Your task to perform on an android device: turn off location history Image 0: 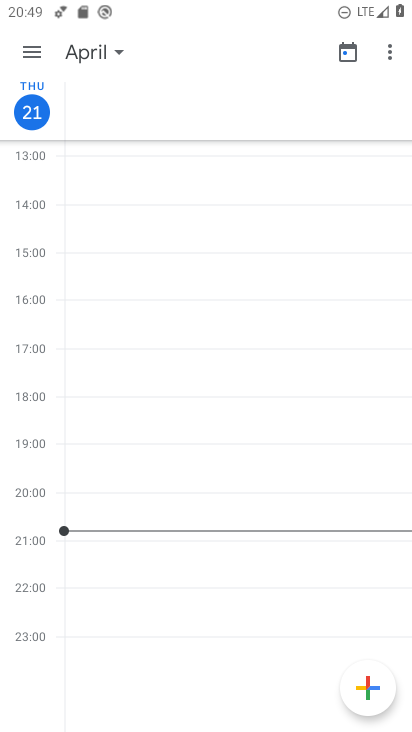
Step 0: drag from (249, 434) to (265, 165)
Your task to perform on an android device: turn off location history Image 1: 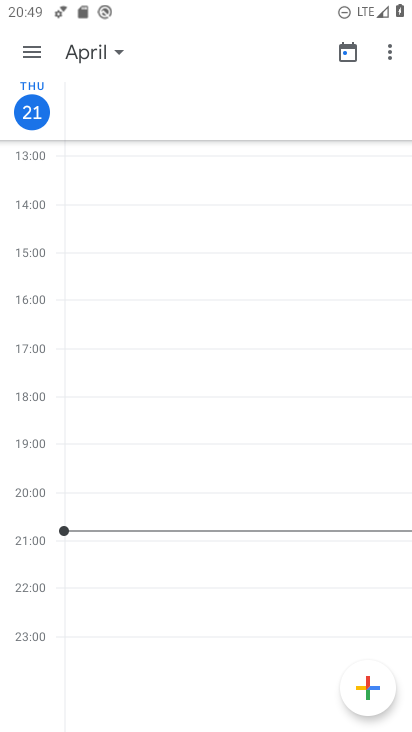
Step 1: press home button
Your task to perform on an android device: turn off location history Image 2: 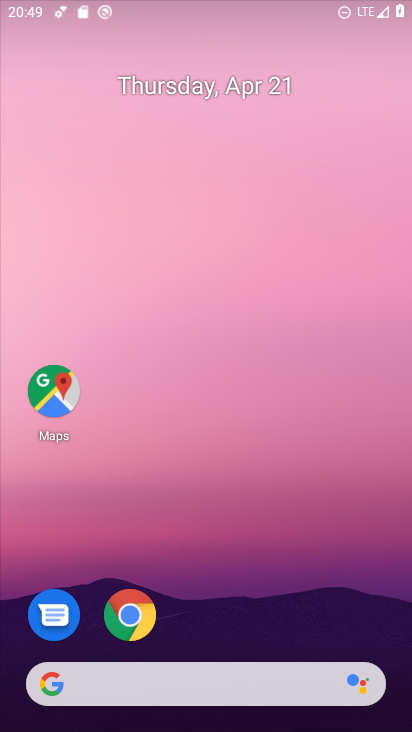
Step 2: drag from (200, 542) to (198, 0)
Your task to perform on an android device: turn off location history Image 3: 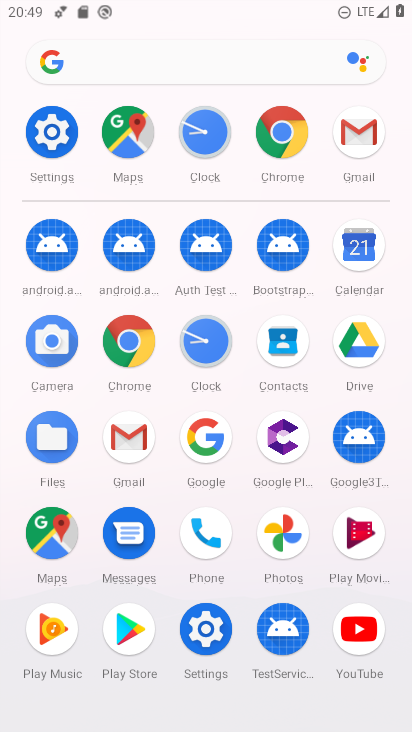
Step 3: click (207, 638)
Your task to perform on an android device: turn off location history Image 4: 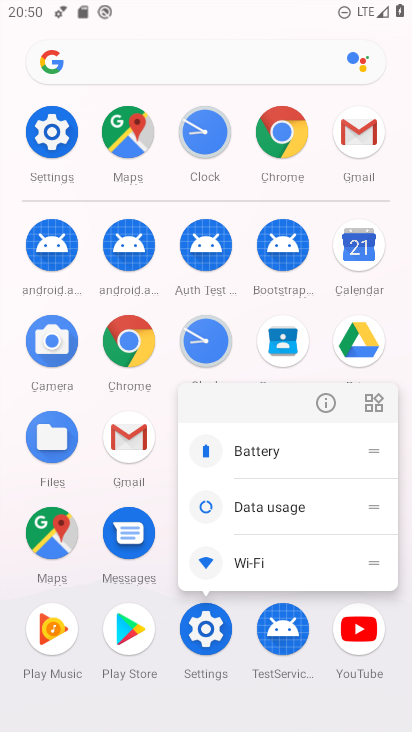
Step 4: click (335, 407)
Your task to perform on an android device: turn off location history Image 5: 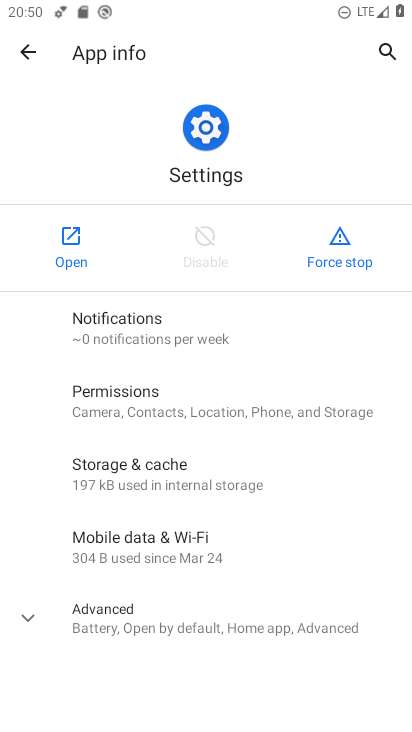
Step 5: click (62, 258)
Your task to perform on an android device: turn off location history Image 6: 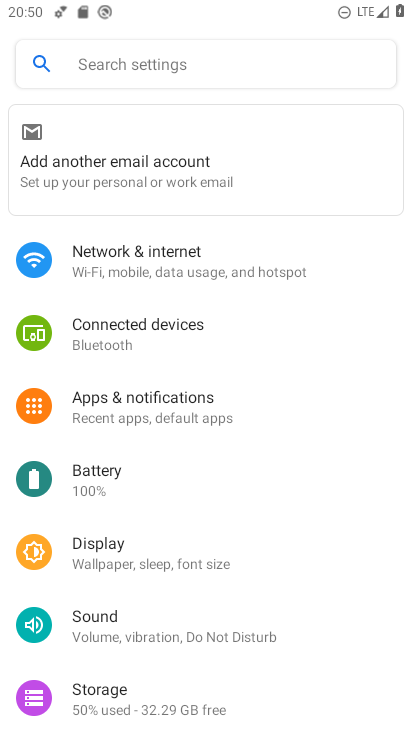
Step 6: drag from (187, 588) to (276, 79)
Your task to perform on an android device: turn off location history Image 7: 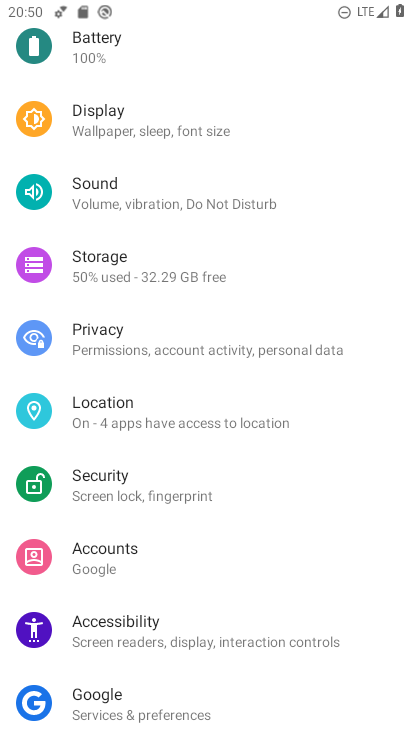
Step 7: drag from (181, 645) to (263, 211)
Your task to perform on an android device: turn off location history Image 8: 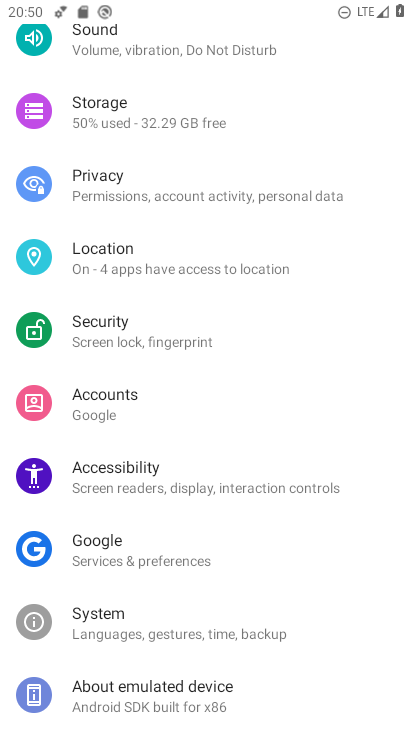
Step 8: click (174, 256)
Your task to perform on an android device: turn off location history Image 9: 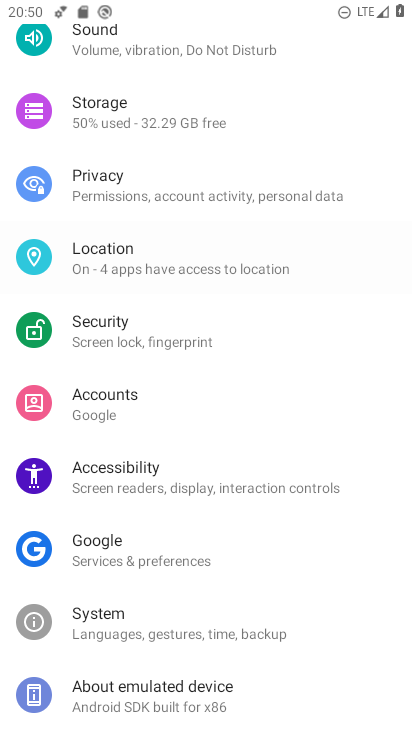
Step 9: click (161, 269)
Your task to perform on an android device: turn off location history Image 10: 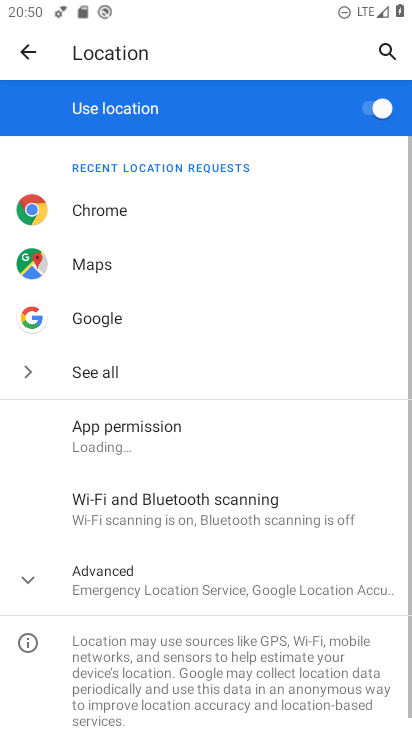
Step 10: click (158, 584)
Your task to perform on an android device: turn off location history Image 11: 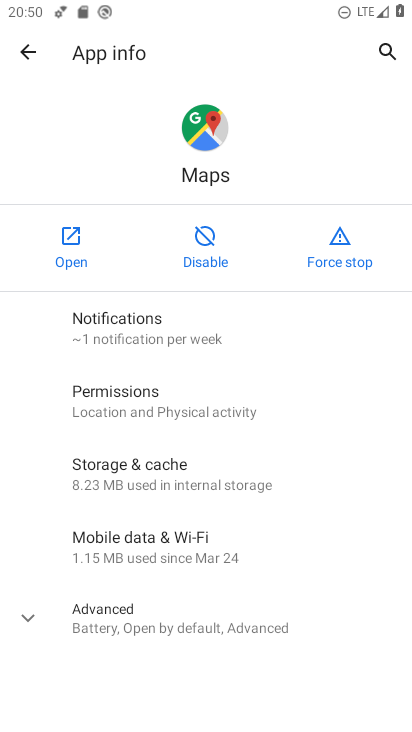
Step 11: click (23, 40)
Your task to perform on an android device: turn off location history Image 12: 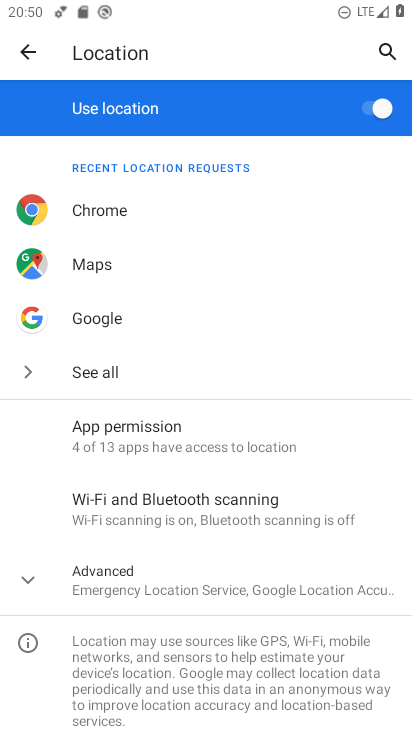
Step 12: drag from (219, 560) to (232, 145)
Your task to perform on an android device: turn off location history Image 13: 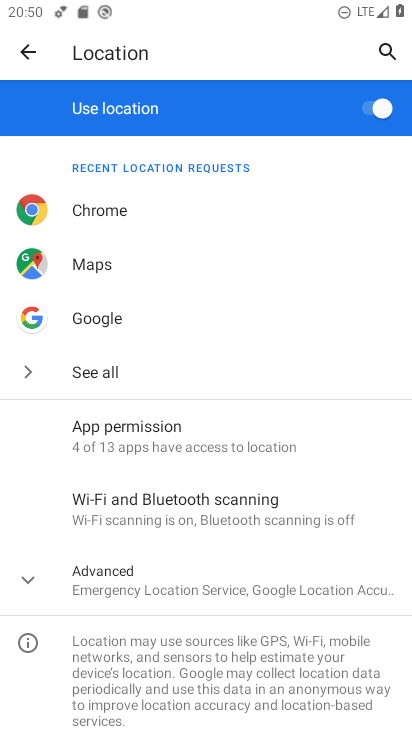
Step 13: click (131, 574)
Your task to perform on an android device: turn off location history Image 14: 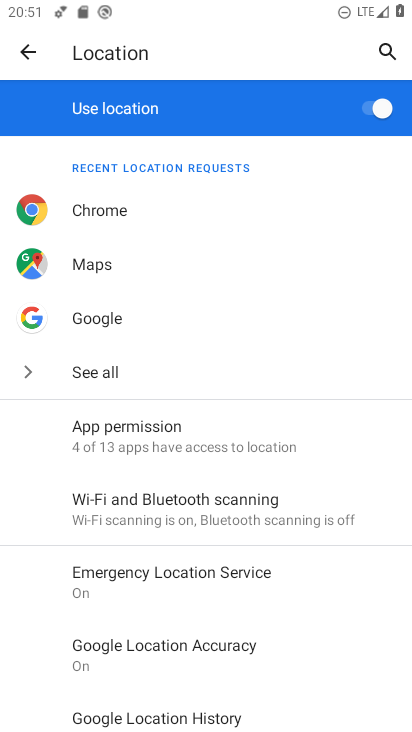
Step 14: drag from (197, 535) to (295, 202)
Your task to perform on an android device: turn off location history Image 15: 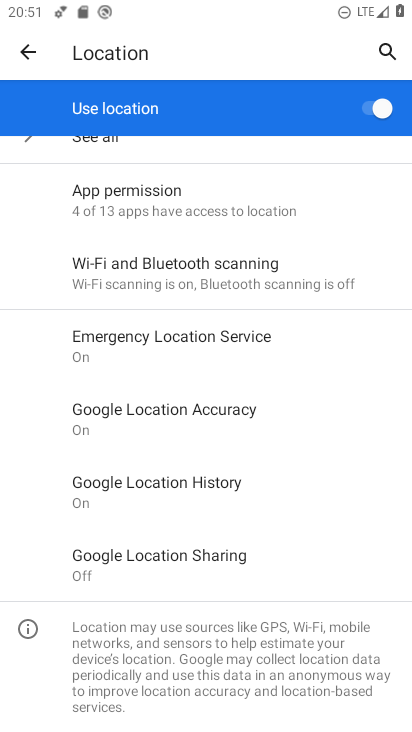
Step 15: click (230, 480)
Your task to perform on an android device: turn off location history Image 16: 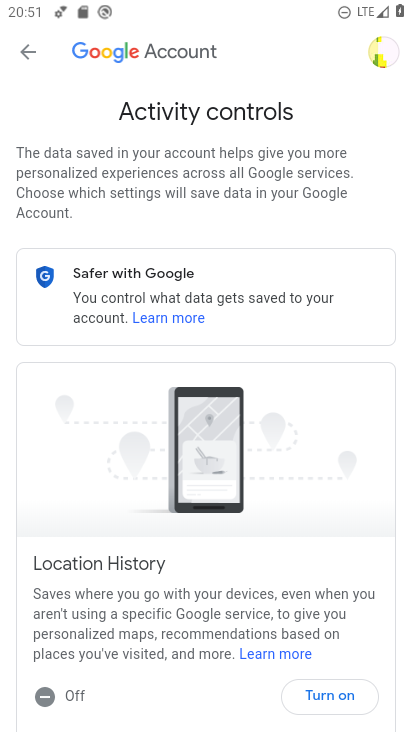
Step 16: click (374, 164)
Your task to perform on an android device: turn off location history Image 17: 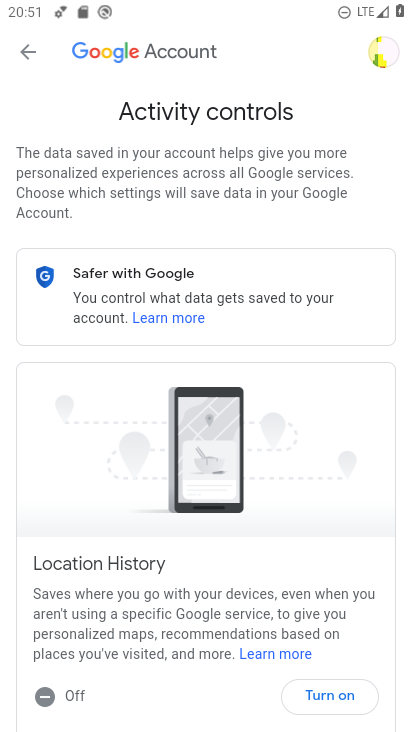
Step 17: click (329, 687)
Your task to perform on an android device: turn off location history Image 18: 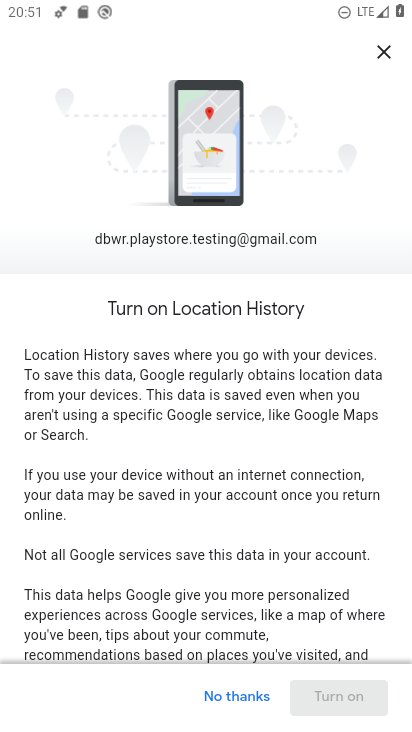
Step 18: drag from (226, 610) to (356, 239)
Your task to perform on an android device: turn off location history Image 19: 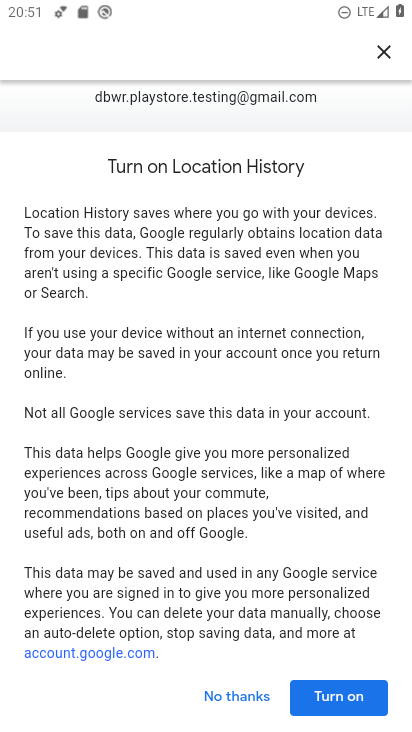
Step 19: drag from (207, 592) to (234, 429)
Your task to perform on an android device: turn off location history Image 20: 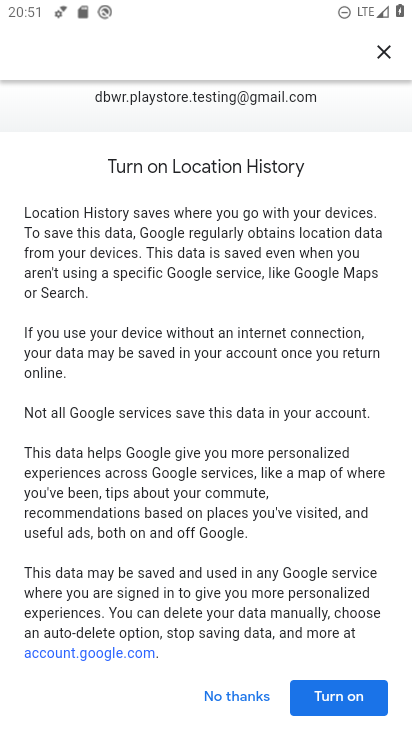
Step 20: click (339, 710)
Your task to perform on an android device: turn off location history Image 21: 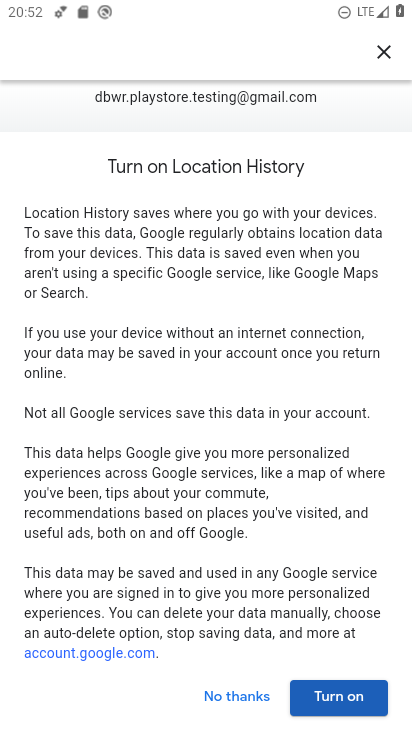
Step 21: click (352, 686)
Your task to perform on an android device: turn off location history Image 22: 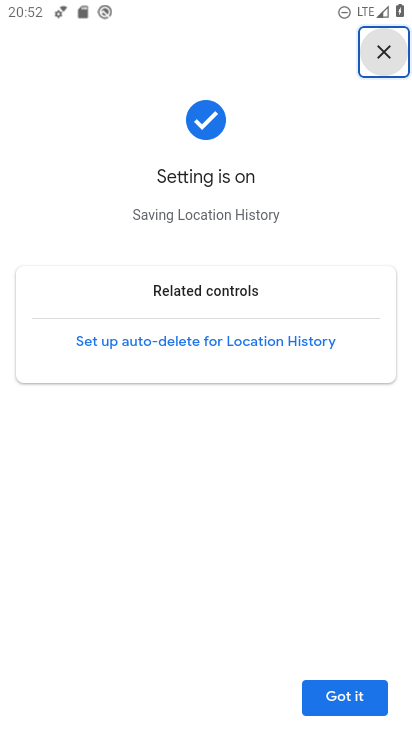
Step 22: click (339, 706)
Your task to perform on an android device: turn off location history Image 23: 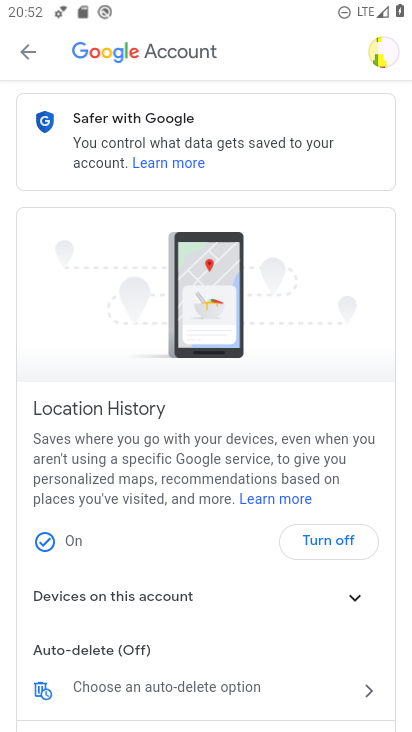
Step 23: drag from (235, 662) to (314, 316)
Your task to perform on an android device: turn off location history Image 24: 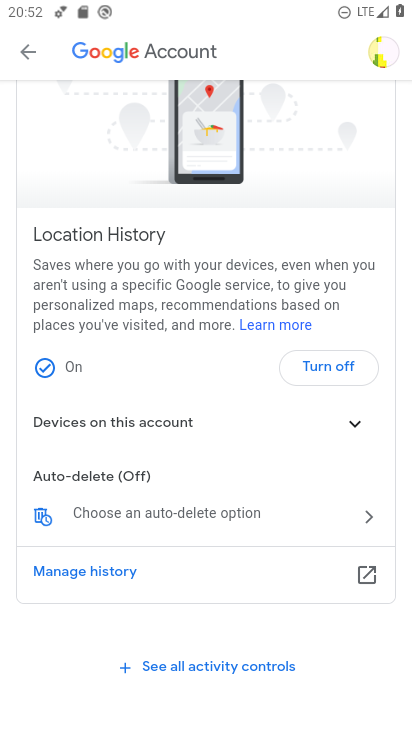
Step 24: drag from (253, 640) to (361, 359)
Your task to perform on an android device: turn off location history Image 25: 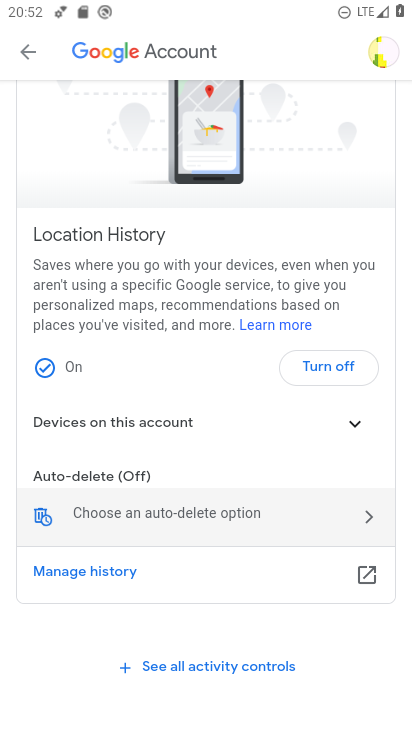
Step 25: drag from (208, 593) to (325, 340)
Your task to perform on an android device: turn off location history Image 26: 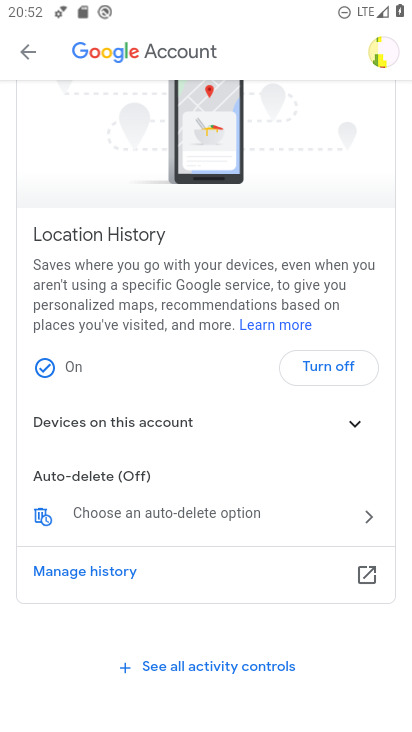
Step 26: click (342, 373)
Your task to perform on an android device: turn off location history Image 27: 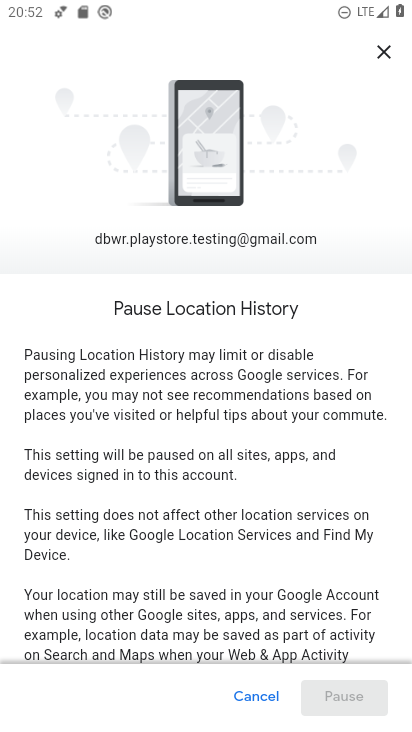
Step 27: drag from (287, 154) to (310, 74)
Your task to perform on an android device: turn off location history Image 28: 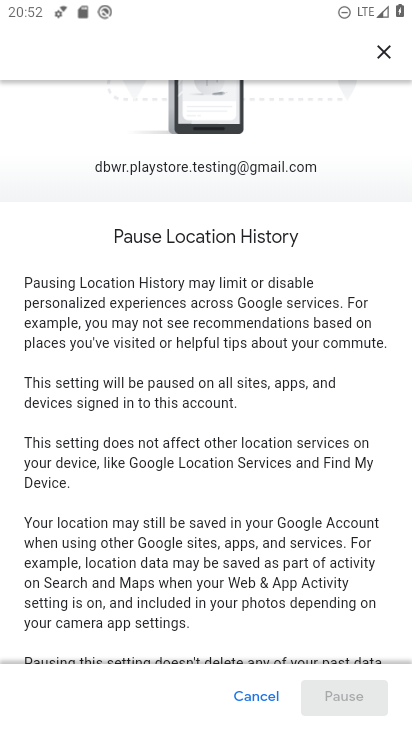
Step 28: drag from (226, 580) to (308, 95)
Your task to perform on an android device: turn off location history Image 29: 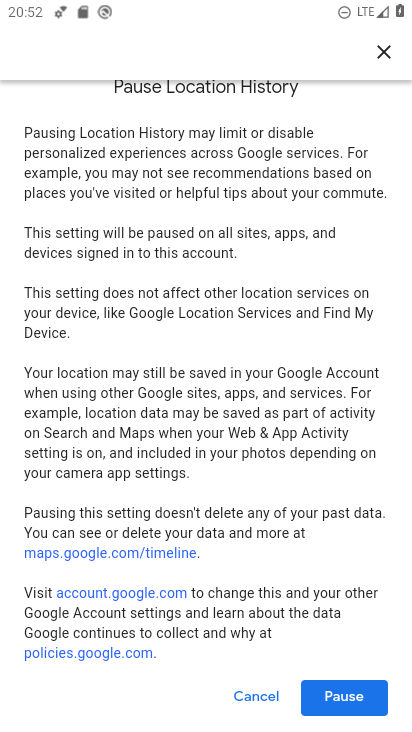
Step 29: click (330, 710)
Your task to perform on an android device: turn off location history Image 30: 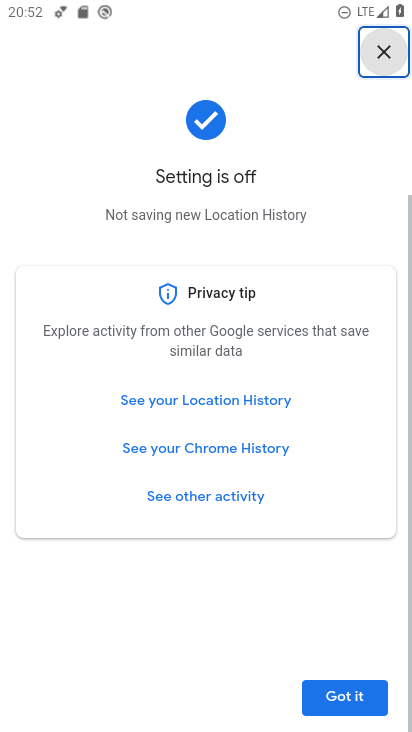
Step 30: task complete